Your task to perform on an android device: Open Google Maps and go to "Timeline" Image 0: 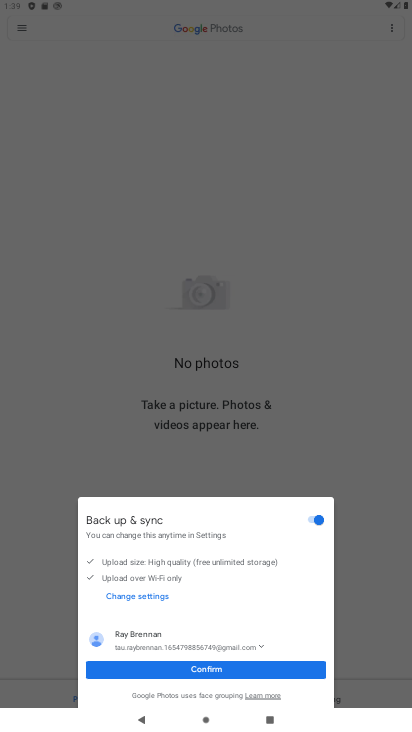
Step 0: press home button
Your task to perform on an android device: Open Google Maps and go to "Timeline" Image 1: 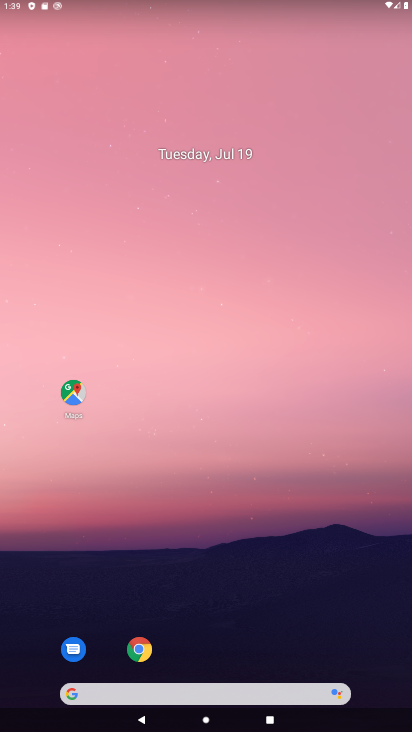
Step 1: drag from (315, 487) to (253, 119)
Your task to perform on an android device: Open Google Maps and go to "Timeline" Image 2: 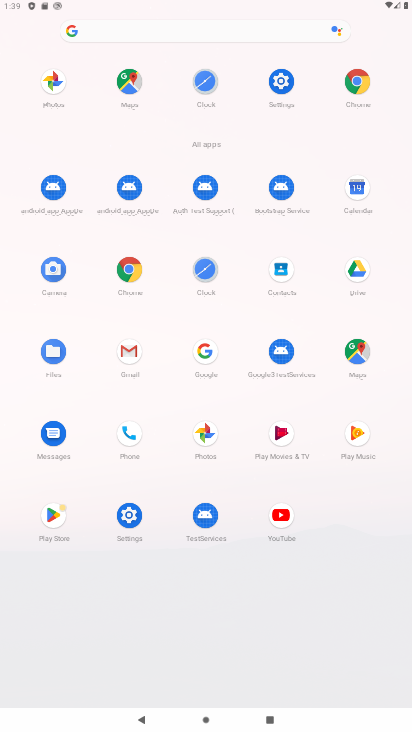
Step 2: click (352, 347)
Your task to perform on an android device: Open Google Maps and go to "Timeline" Image 3: 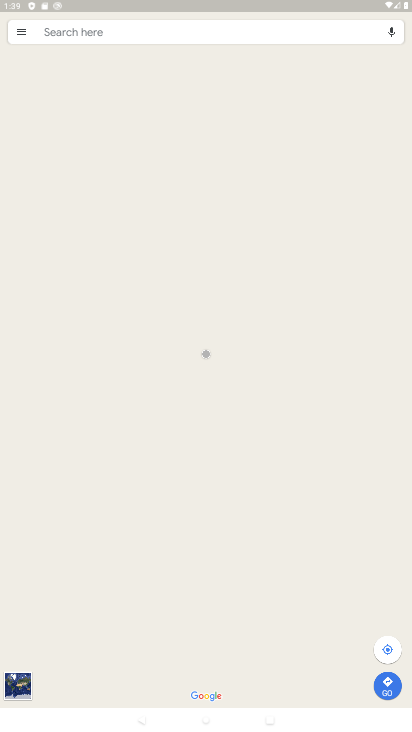
Step 3: click (24, 28)
Your task to perform on an android device: Open Google Maps and go to "Timeline" Image 4: 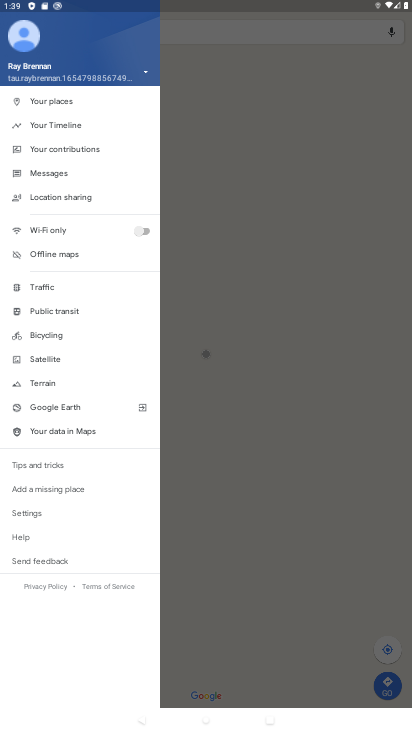
Step 4: click (53, 124)
Your task to perform on an android device: Open Google Maps and go to "Timeline" Image 5: 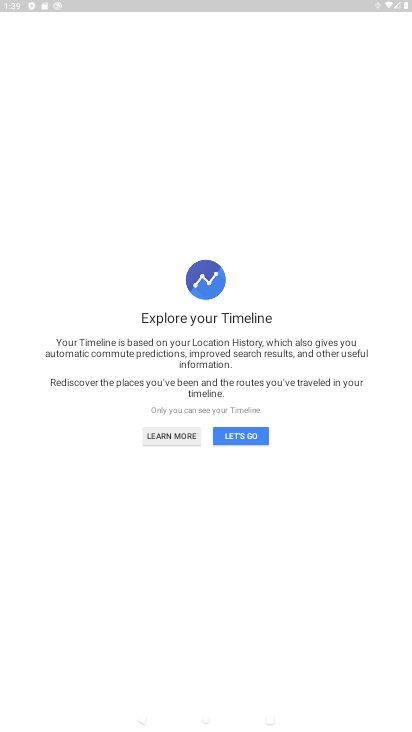
Step 5: click (247, 434)
Your task to perform on an android device: Open Google Maps and go to "Timeline" Image 6: 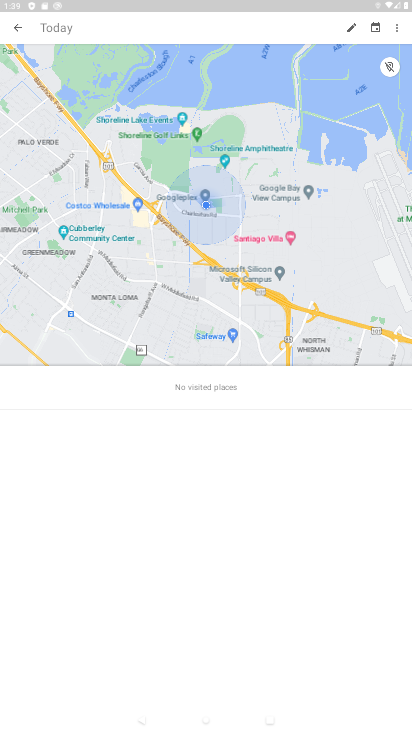
Step 6: task complete